Your task to perform on an android device: Open Android settings Image 0: 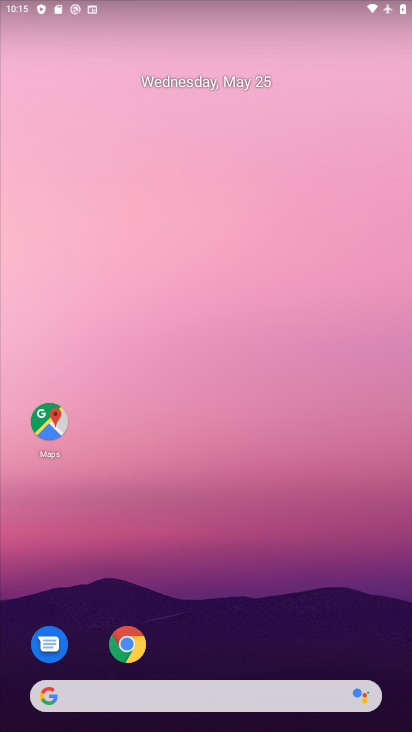
Step 0: drag from (295, 595) to (273, 98)
Your task to perform on an android device: Open Android settings Image 1: 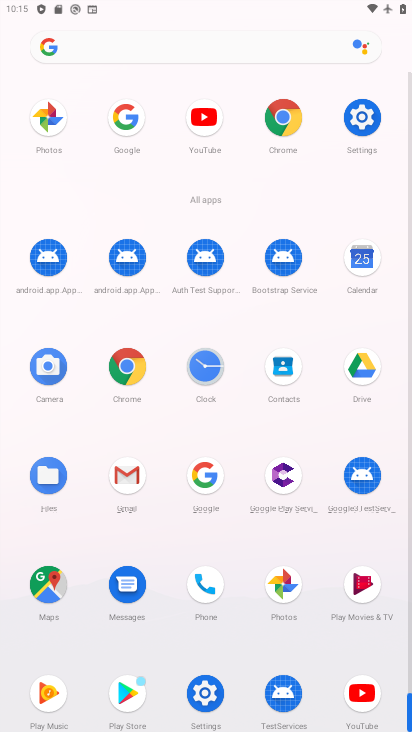
Step 1: click (356, 114)
Your task to perform on an android device: Open Android settings Image 2: 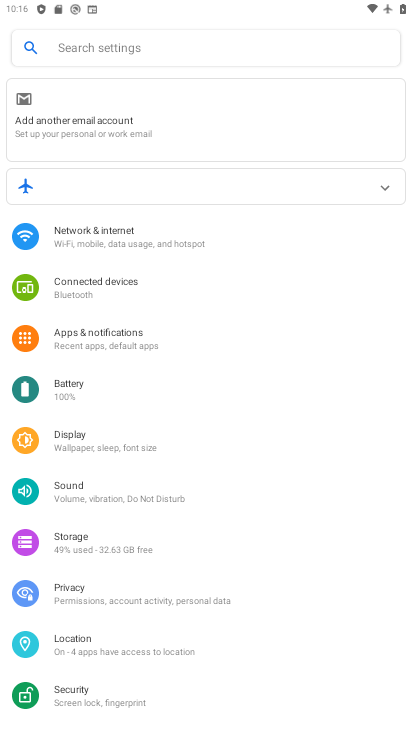
Step 2: task complete